Your task to perform on an android device: Find coffee shops on Maps Image 0: 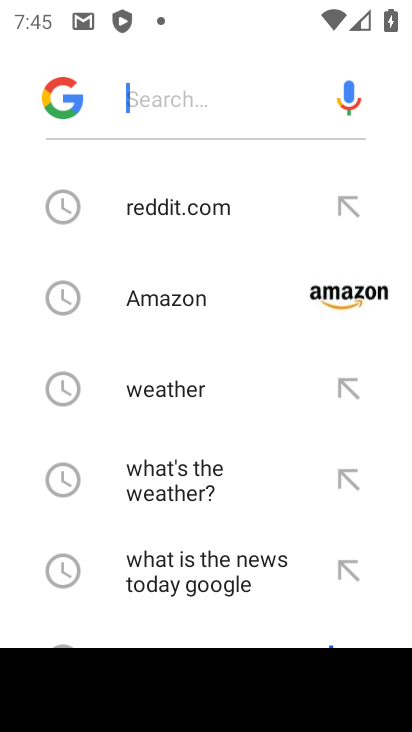
Step 0: press home button
Your task to perform on an android device: Find coffee shops on Maps Image 1: 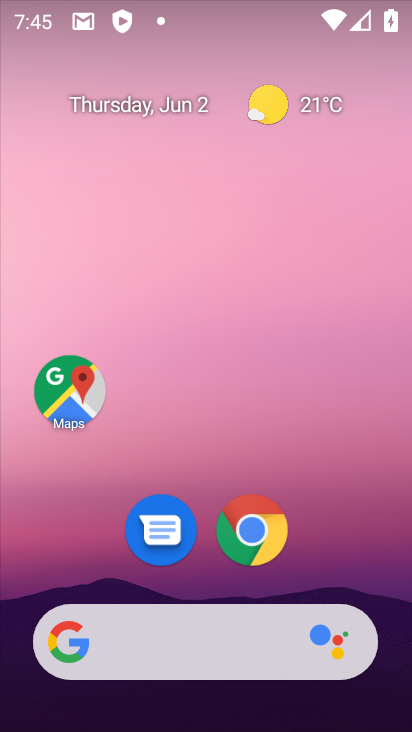
Step 1: click (83, 399)
Your task to perform on an android device: Find coffee shops on Maps Image 2: 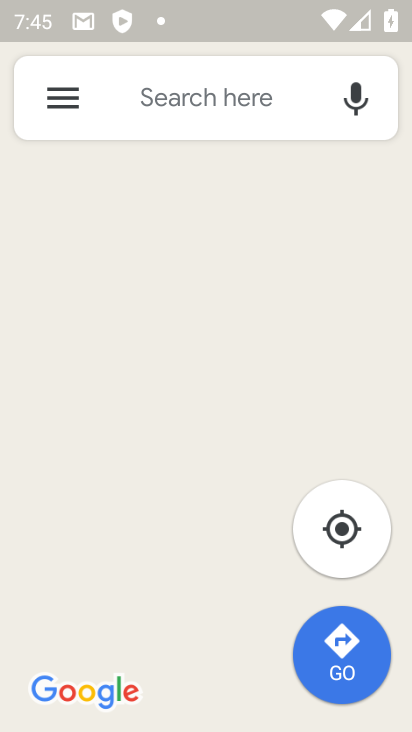
Step 2: click (186, 111)
Your task to perform on an android device: Find coffee shops on Maps Image 3: 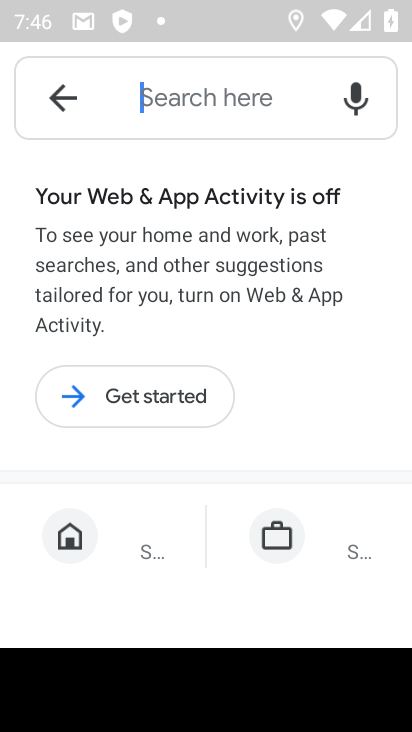
Step 3: drag from (209, 423) to (237, 157)
Your task to perform on an android device: Find coffee shops on Maps Image 4: 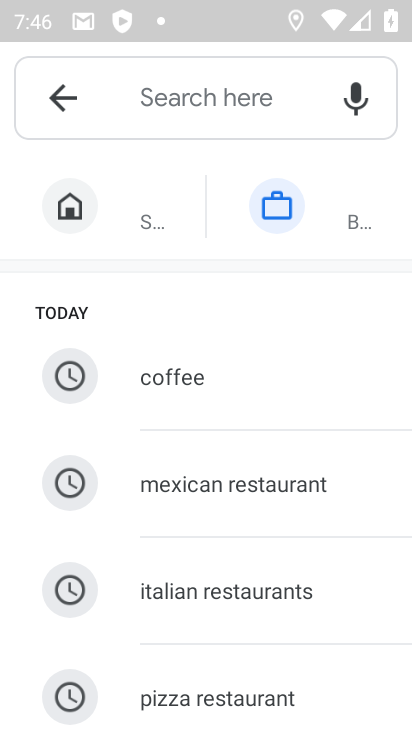
Step 4: click (155, 380)
Your task to perform on an android device: Find coffee shops on Maps Image 5: 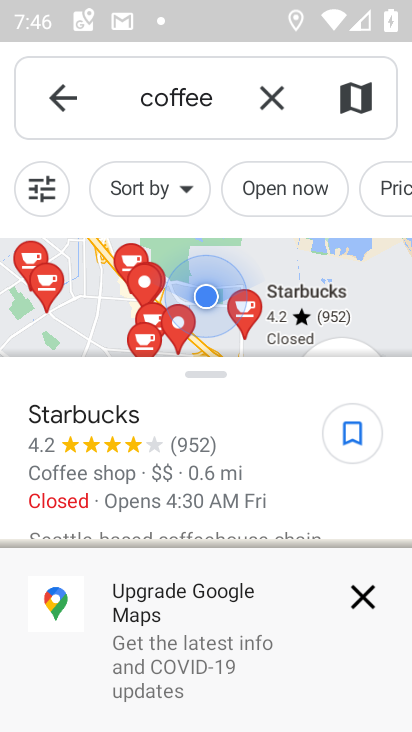
Step 5: task complete